Your task to perform on an android device: Go to location settings Image 0: 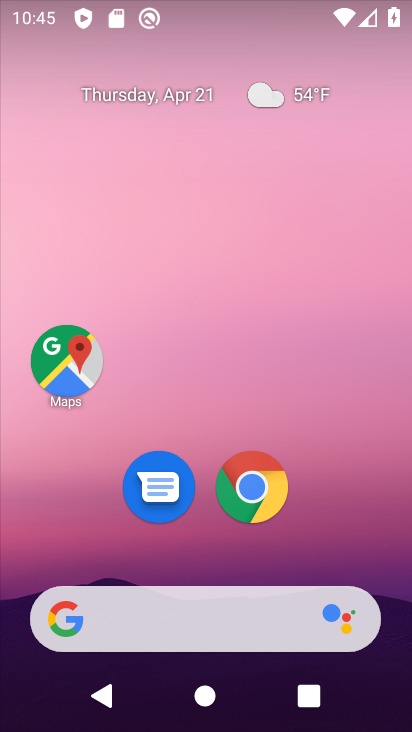
Step 0: drag from (381, 524) to (368, 146)
Your task to perform on an android device: Go to location settings Image 1: 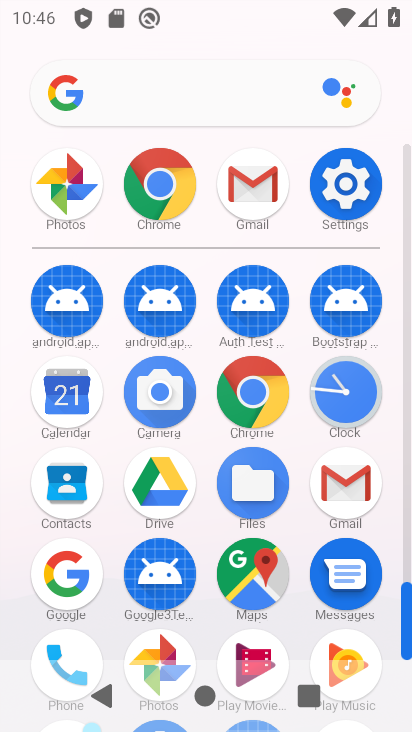
Step 1: click (364, 166)
Your task to perform on an android device: Go to location settings Image 2: 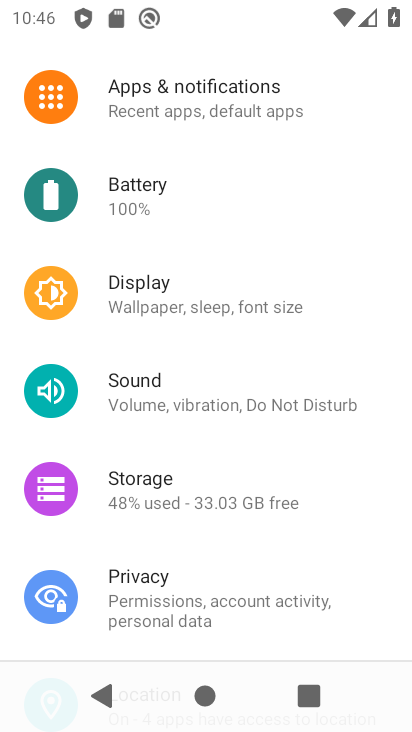
Step 2: drag from (310, 543) to (315, 268)
Your task to perform on an android device: Go to location settings Image 3: 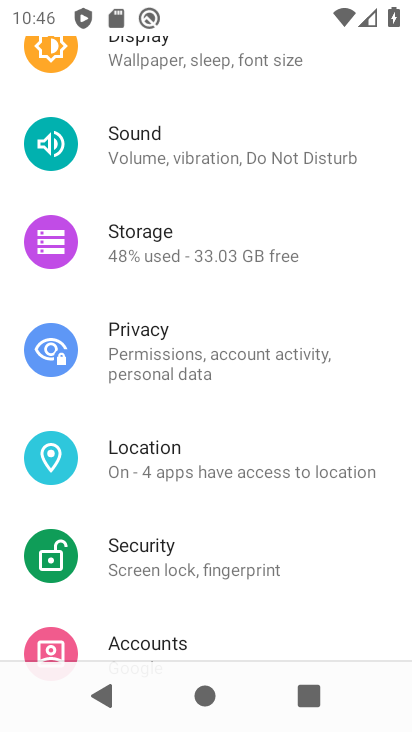
Step 3: click (237, 465)
Your task to perform on an android device: Go to location settings Image 4: 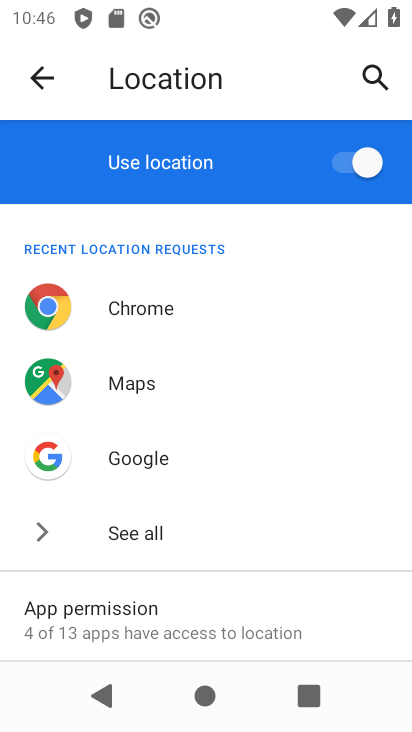
Step 4: drag from (291, 581) to (286, 281)
Your task to perform on an android device: Go to location settings Image 5: 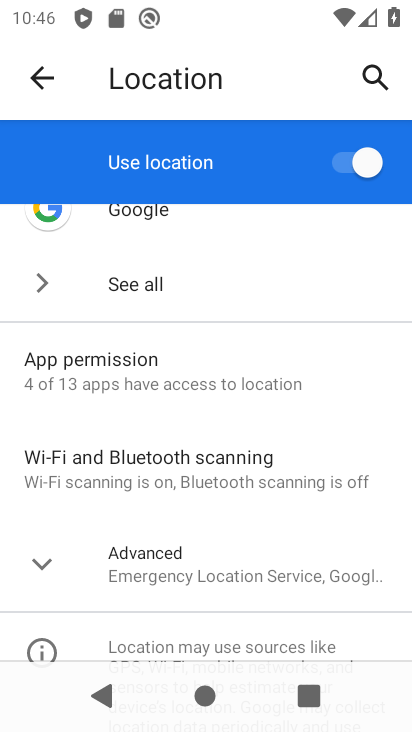
Step 5: drag from (289, 521) to (299, 279)
Your task to perform on an android device: Go to location settings Image 6: 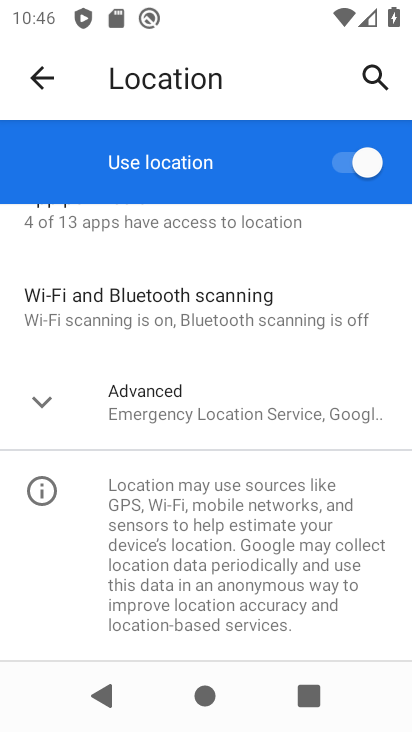
Step 6: click (238, 391)
Your task to perform on an android device: Go to location settings Image 7: 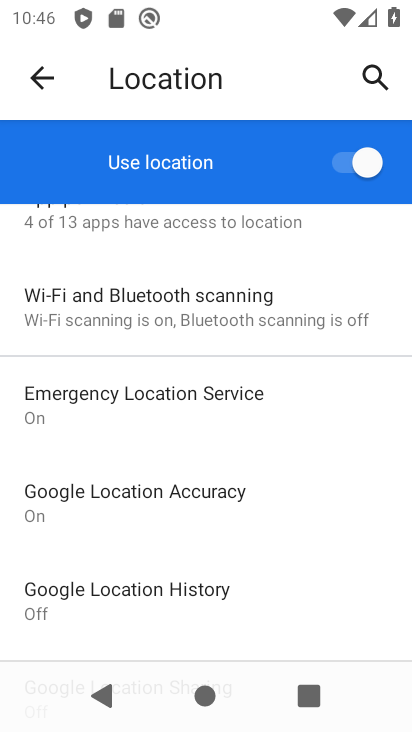
Step 7: task complete